Your task to perform on an android device: Show me popular games on the Play Store Image 0: 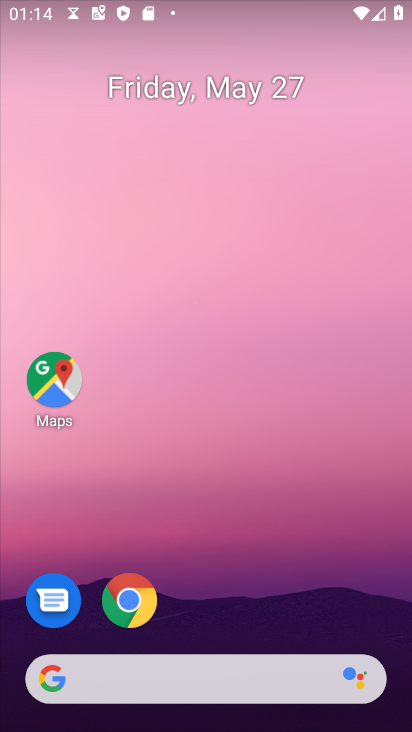
Step 0: drag from (267, 536) to (252, 210)
Your task to perform on an android device: Show me popular games on the Play Store Image 1: 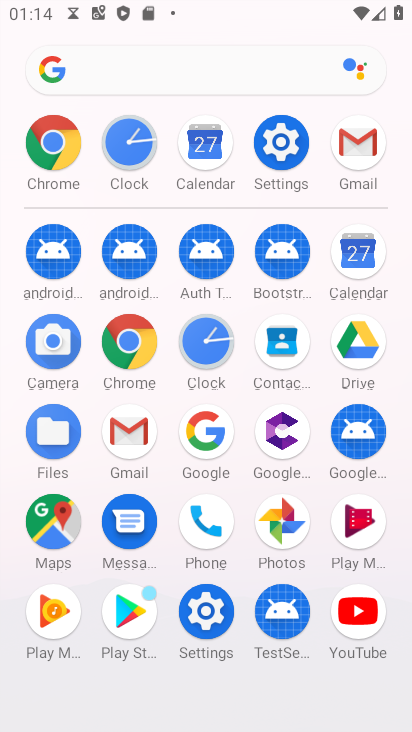
Step 1: click (112, 605)
Your task to perform on an android device: Show me popular games on the Play Store Image 2: 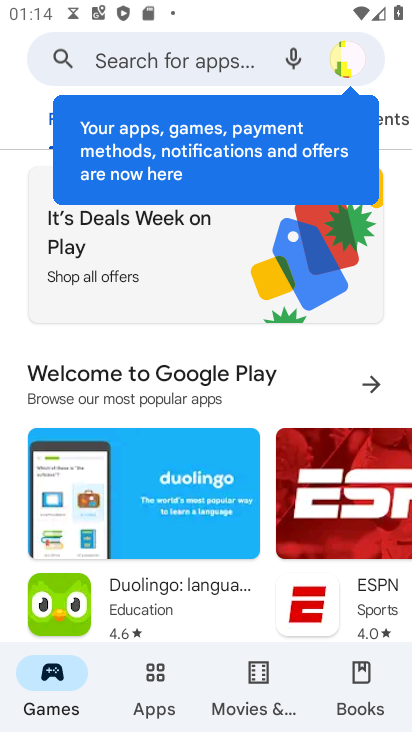
Step 2: click (169, 55)
Your task to perform on an android device: Show me popular games on the Play Store Image 3: 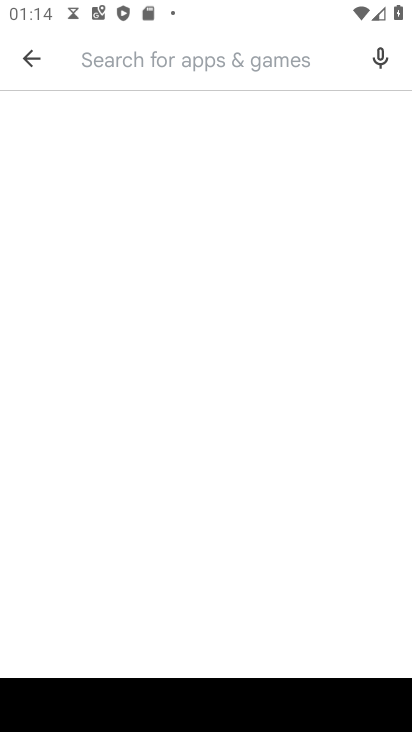
Step 3: type "popular game"
Your task to perform on an android device: Show me popular games on the Play Store Image 4: 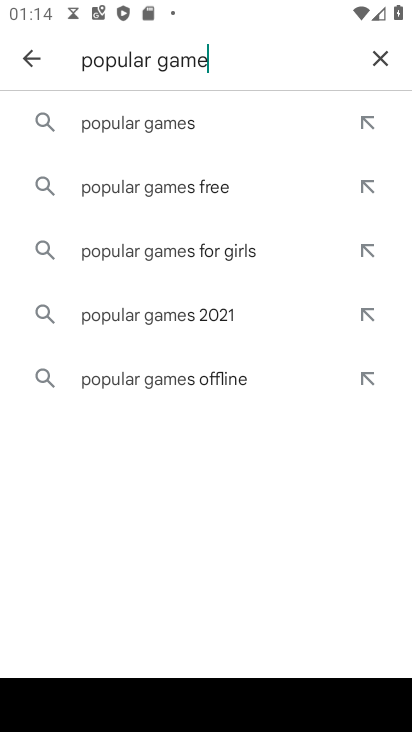
Step 4: click (119, 132)
Your task to perform on an android device: Show me popular games on the Play Store Image 5: 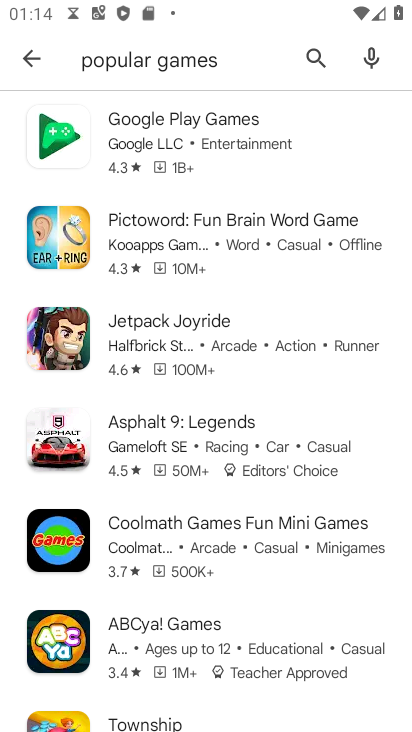
Step 5: task complete